Your task to perform on an android device: make emails show in primary in the gmail app Image 0: 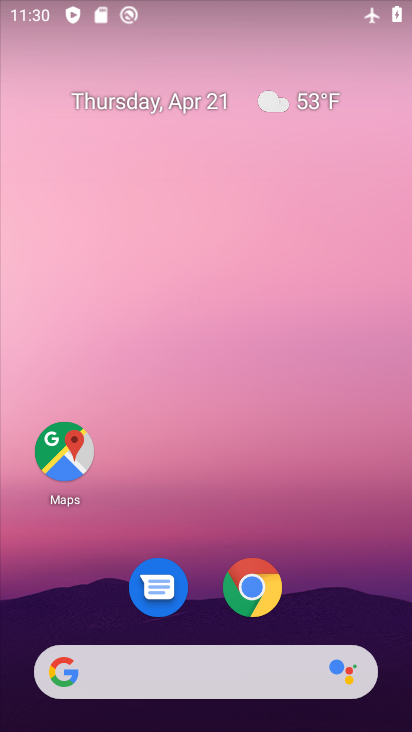
Step 0: drag from (205, 534) to (242, 78)
Your task to perform on an android device: make emails show in primary in the gmail app Image 1: 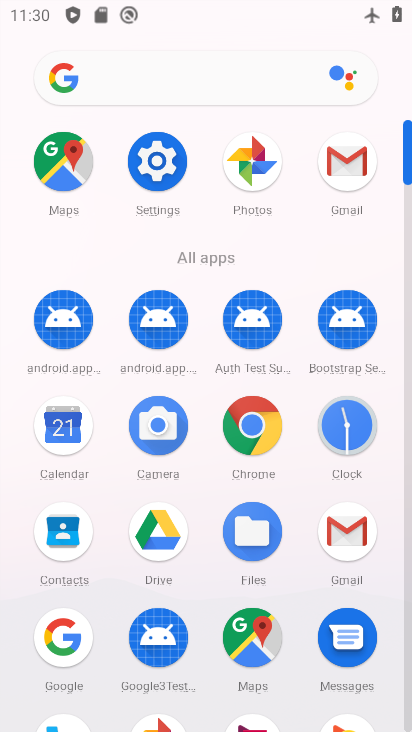
Step 1: click (346, 164)
Your task to perform on an android device: make emails show in primary in the gmail app Image 2: 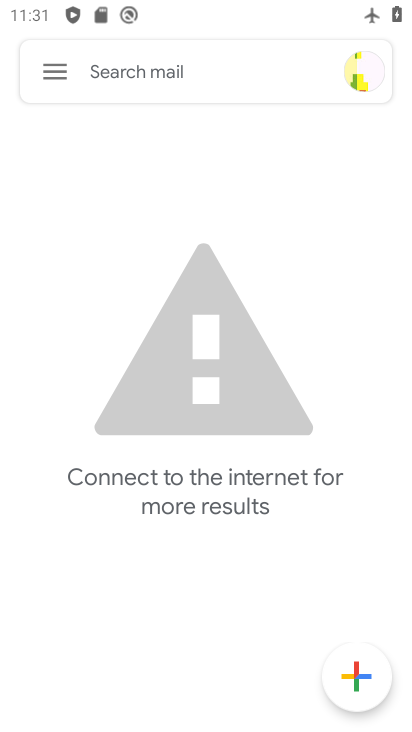
Step 2: drag from (279, 10) to (273, 533)
Your task to perform on an android device: make emails show in primary in the gmail app Image 3: 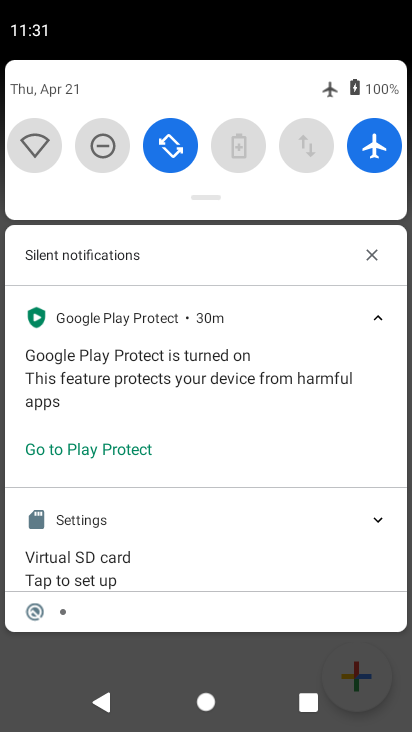
Step 3: press back button
Your task to perform on an android device: make emails show in primary in the gmail app Image 4: 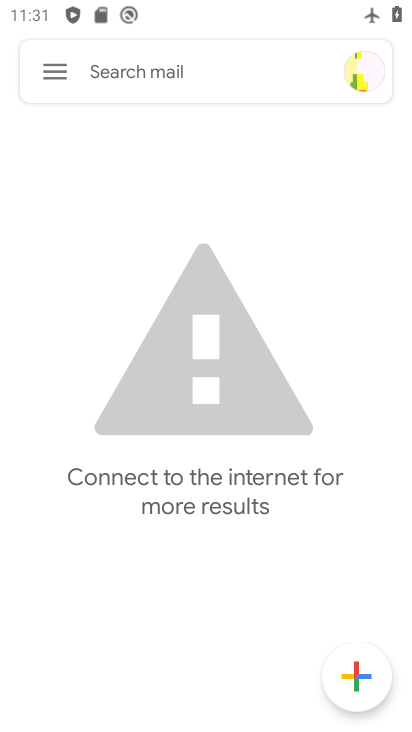
Step 4: drag from (319, 14) to (257, 571)
Your task to perform on an android device: make emails show in primary in the gmail app Image 5: 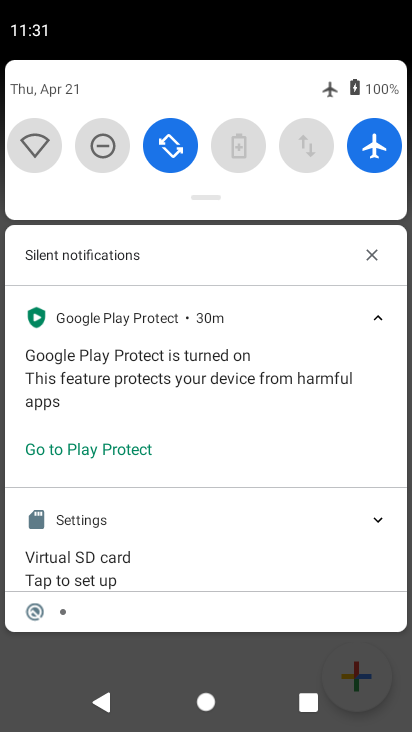
Step 5: click (367, 156)
Your task to perform on an android device: make emails show in primary in the gmail app Image 6: 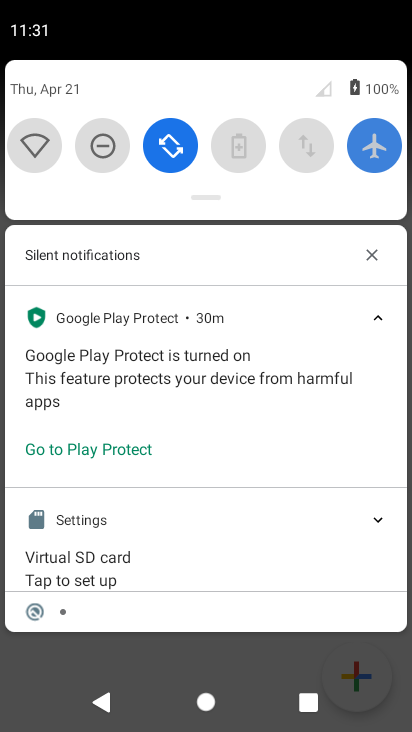
Step 6: click (151, 648)
Your task to perform on an android device: make emails show in primary in the gmail app Image 7: 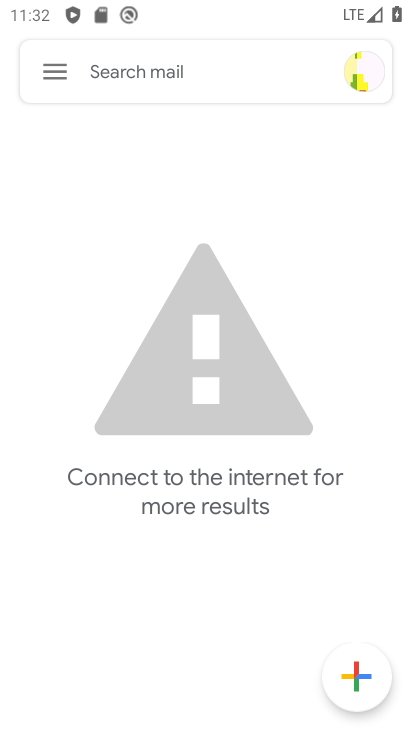
Step 7: click (42, 64)
Your task to perform on an android device: make emails show in primary in the gmail app Image 8: 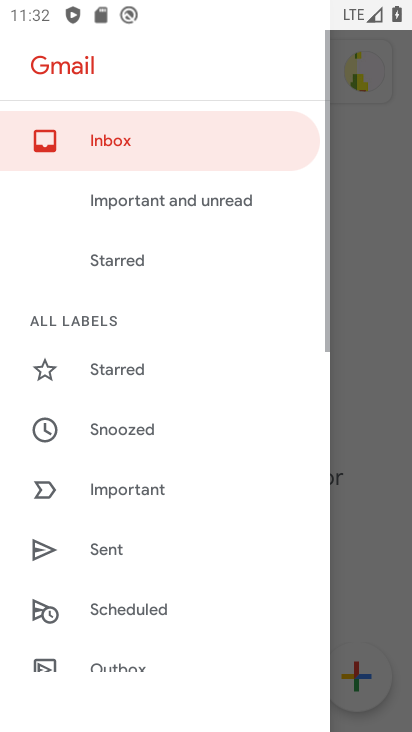
Step 8: drag from (134, 673) to (247, 72)
Your task to perform on an android device: make emails show in primary in the gmail app Image 9: 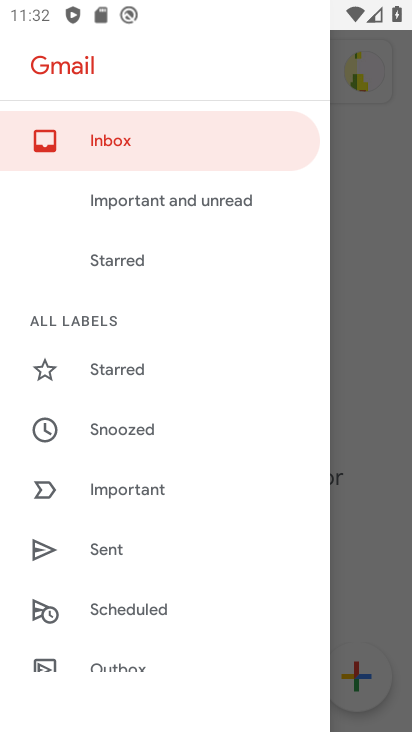
Step 9: drag from (134, 497) to (187, 160)
Your task to perform on an android device: make emails show in primary in the gmail app Image 10: 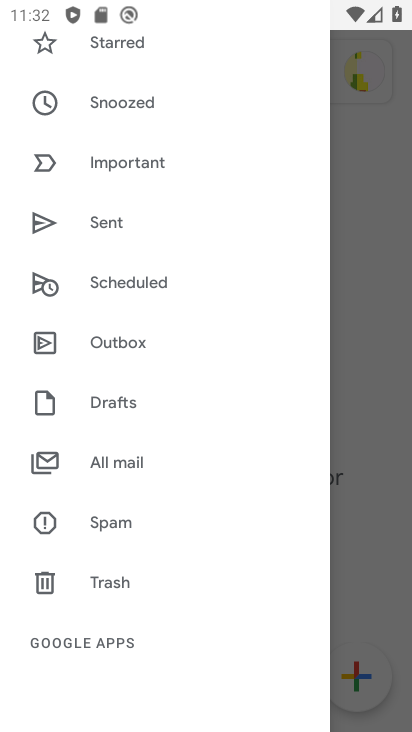
Step 10: drag from (120, 566) to (201, 108)
Your task to perform on an android device: make emails show in primary in the gmail app Image 11: 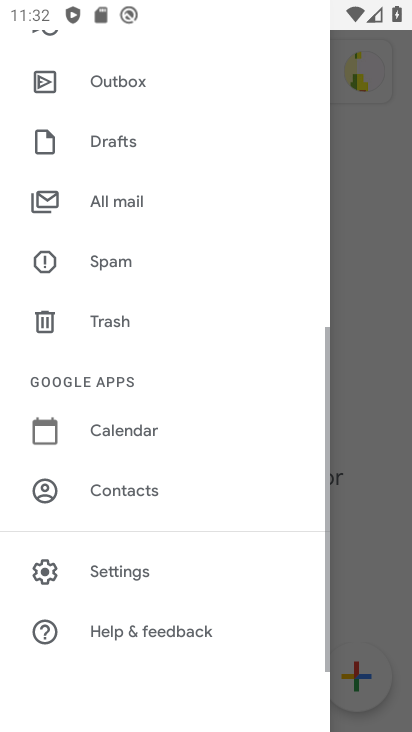
Step 11: click (128, 571)
Your task to perform on an android device: make emails show in primary in the gmail app Image 12: 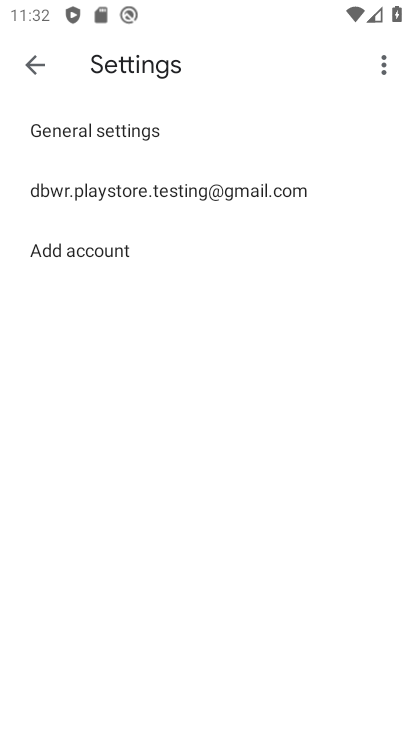
Step 12: click (62, 187)
Your task to perform on an android device: make emails show in primary in the gmail app Image 13: 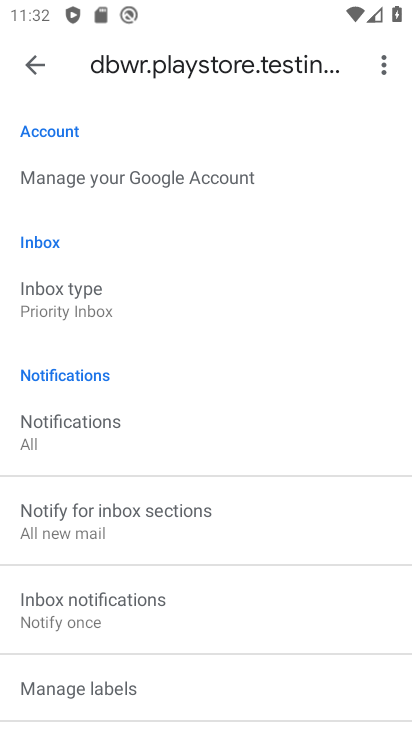
Step 13: task complete